Your task to perform on an android device: change notifications settings Image 0: 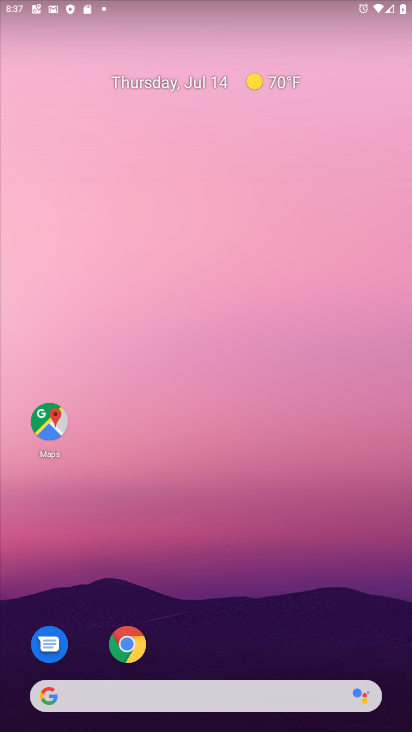
Step 0: drag from (222, 665) to (231, 195)
Your task to perform on an android device: change notifications settings Image 1: 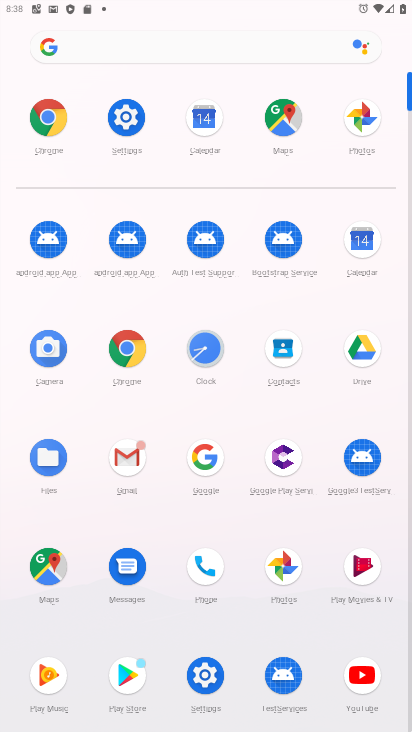
Step 1: click (127, 123)
Your task to perform on an android device: change notifications settings Image 2: 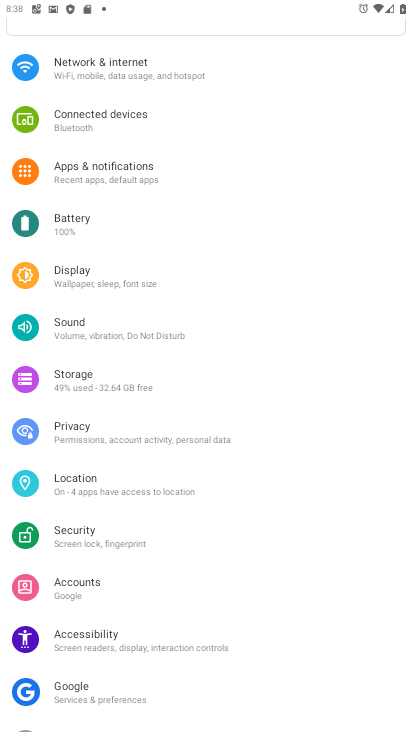
Step 2: click (116, 178)
Your task to perform on an android device: change notifications settings Image 3: 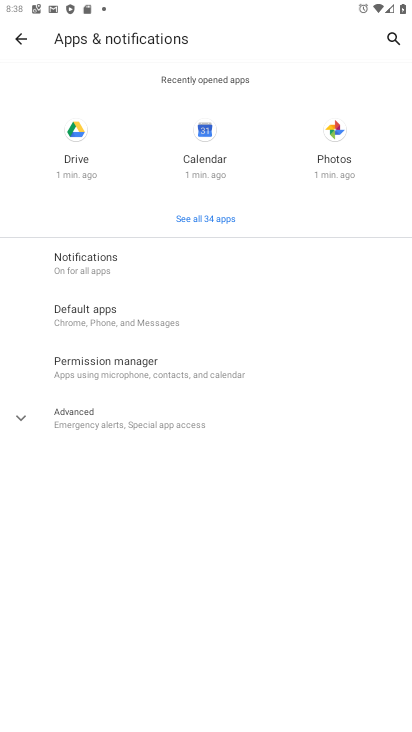
Step 3: click (123, 263)
Your task to perform on an android device: change notifications settings Image 4: 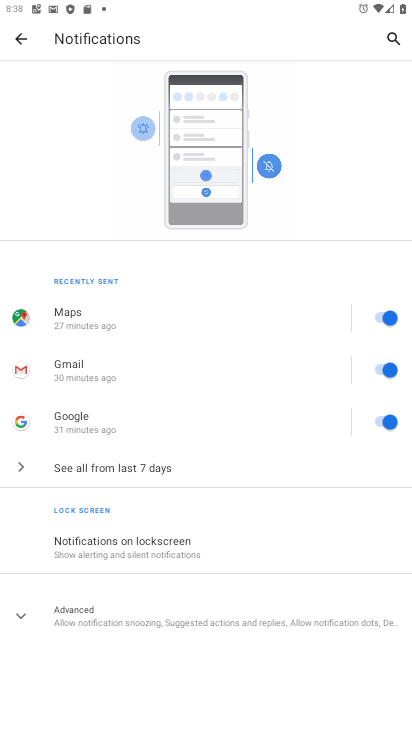
Step 4: click (158, 443)
Your task to perform on an android device: change notifications settings Image 5: 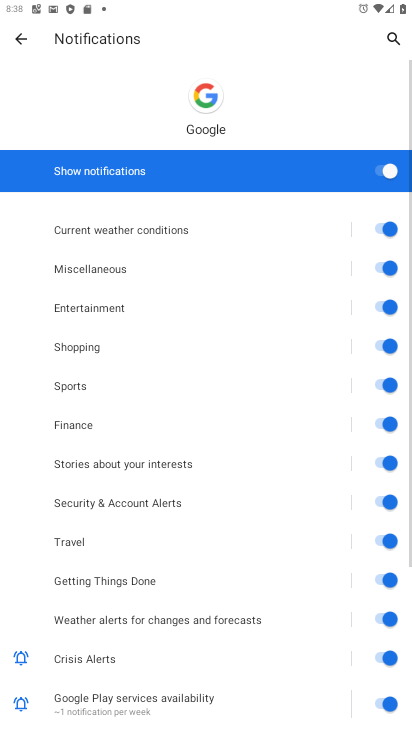
Step 5: click (18, 30)
Your task to perform on an android device: change notifications settings Image 6: 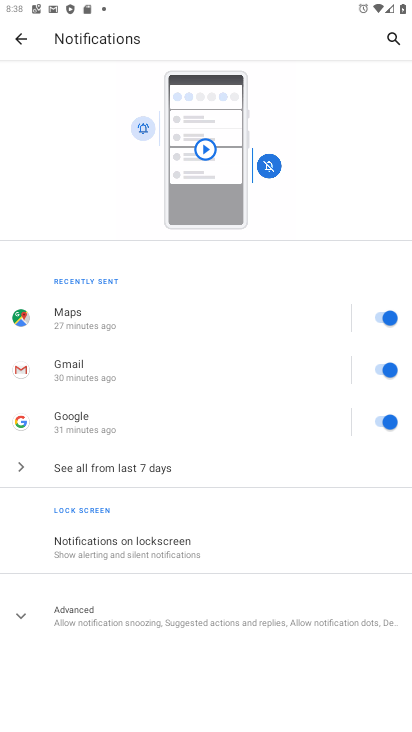
Step 6: click (119, 472)
Your task to perform on an android device: change notifications settings Image 7: 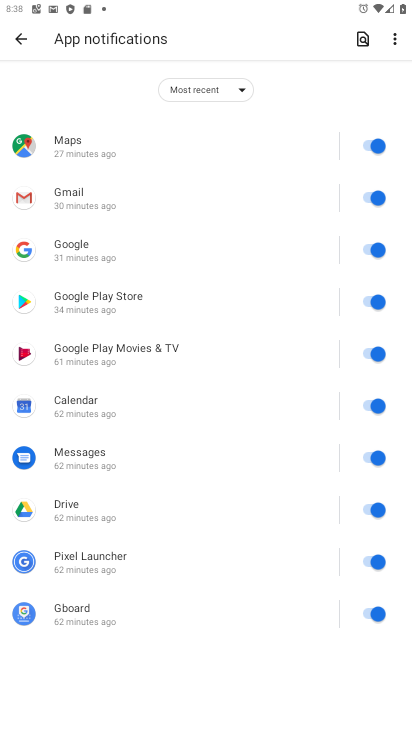
Step 7: click (375, 133)
Your task to perform on an android device: change notifications settings Image 8: 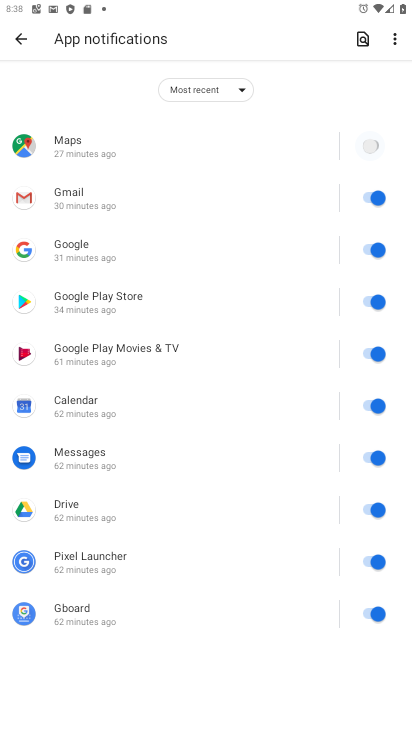
Step 8: click (372, 205)
Your task to perform on an android device: change notifications settings Image 9: 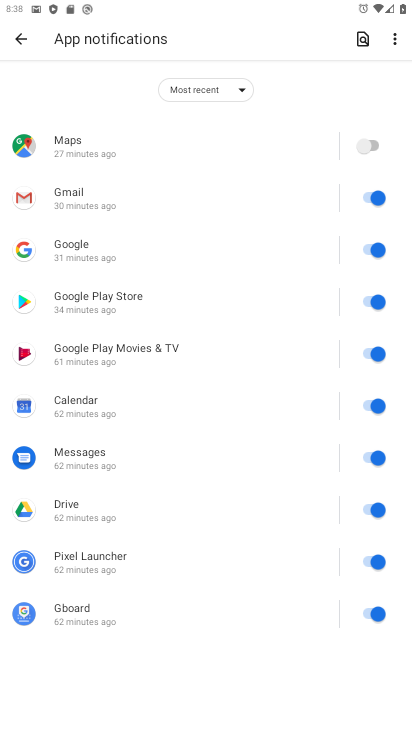
Step 9: click (368, 198)
Your task to perform on an android device: change notifications settings Image 10: 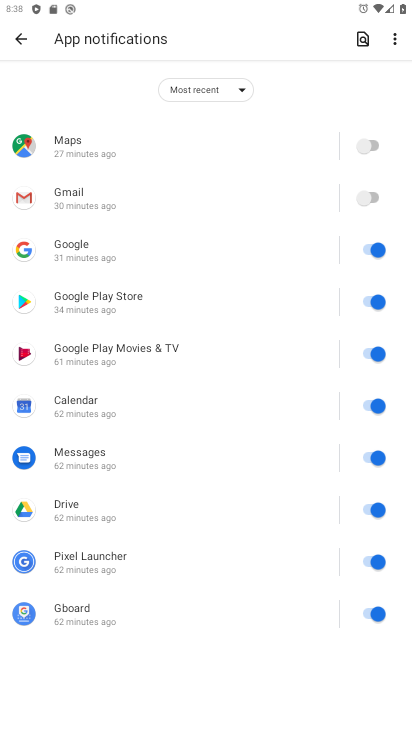
Step 10: click (372, 244)
Your task to perform on an android device: change notifications settings Image 11: 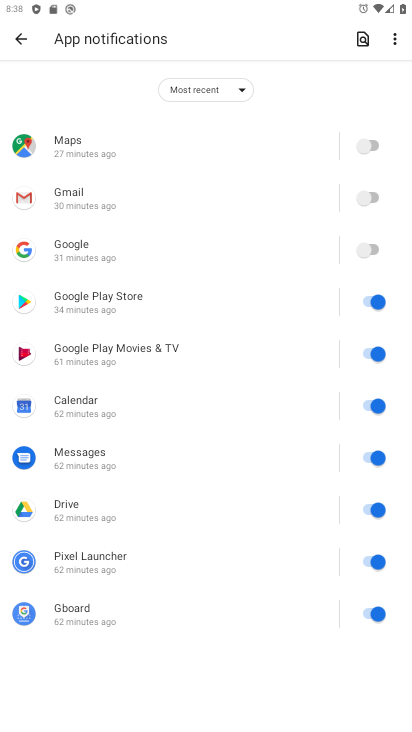
Step 11: click (372, 296)
Your task to perform on an android device: change notifications settings Image 12: 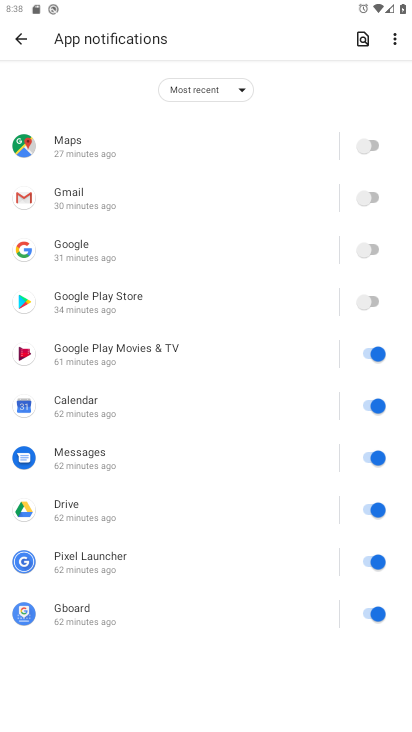
Step 12: click (374, 349)
Your task to perform on an android device: change notifications settings Image 13: 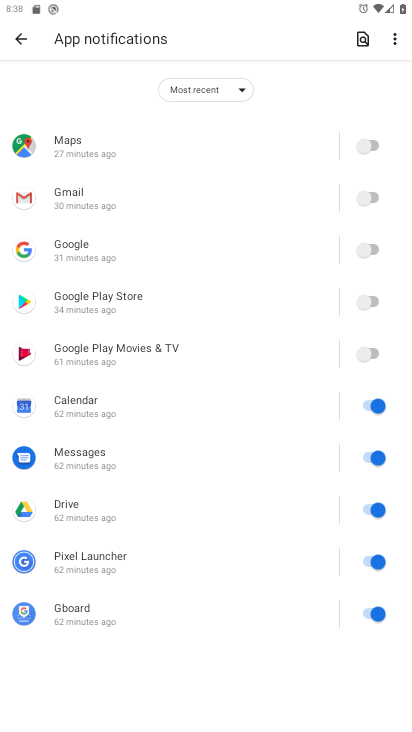
Step 13: click (368, 403)
Your task to perform on an android device: change notifications settings Image 14: 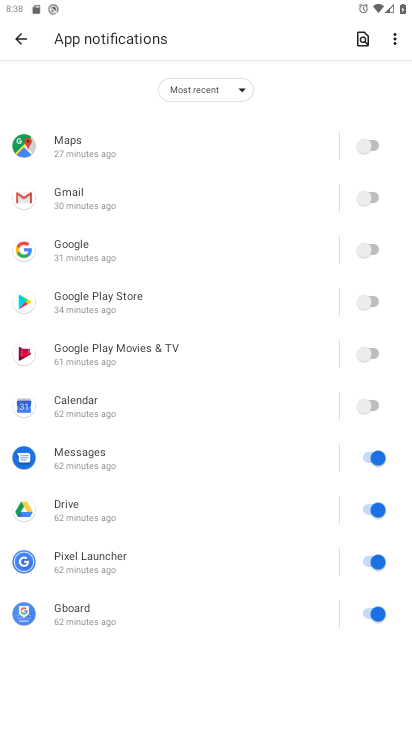
Step 14: click (374, 502)
Your task to perform on an android device: change notifications settings Image 15: 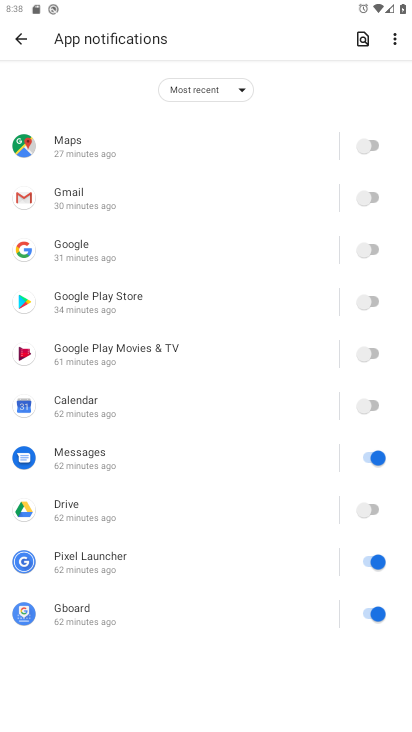
Step 15: click (372, 555)
Your task to perform on an android device: change notifications settings Image 16: 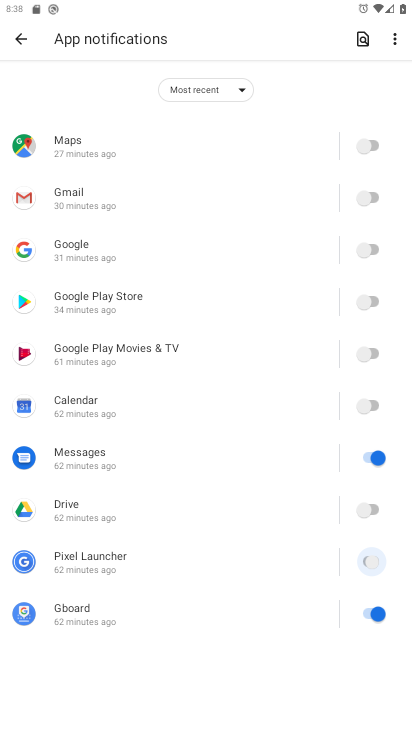
Step 16: click (376, 620)
Your task to perform on an android device: change notifications settings Image 17: 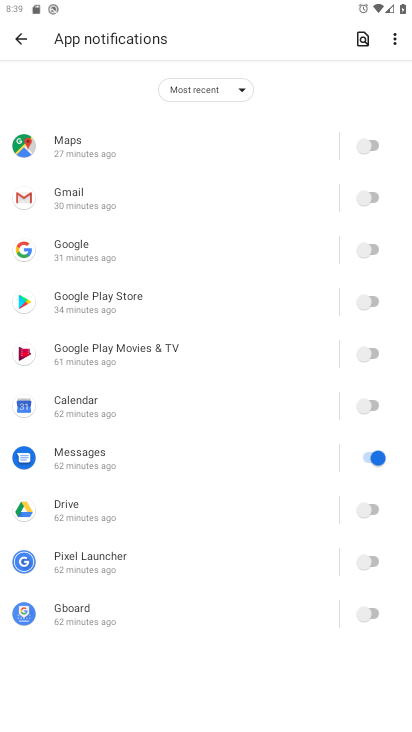
Step 17: click (372, 458)
Your task to perform on an android device: change notifications settings Image 18: 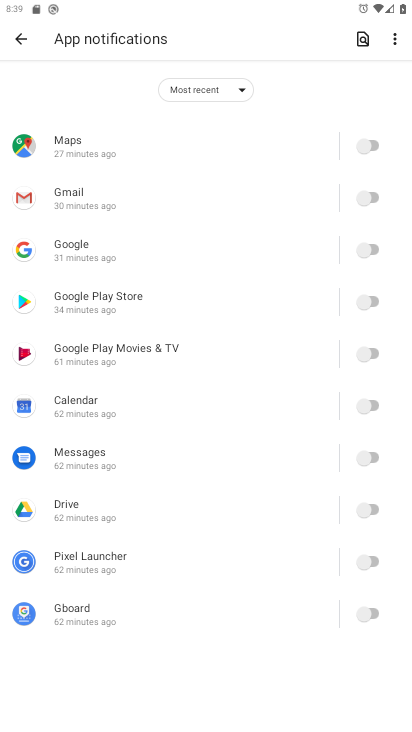
Step 18: task complete